Your task to perform on an android device: turn off picture-in-picture Image 0: 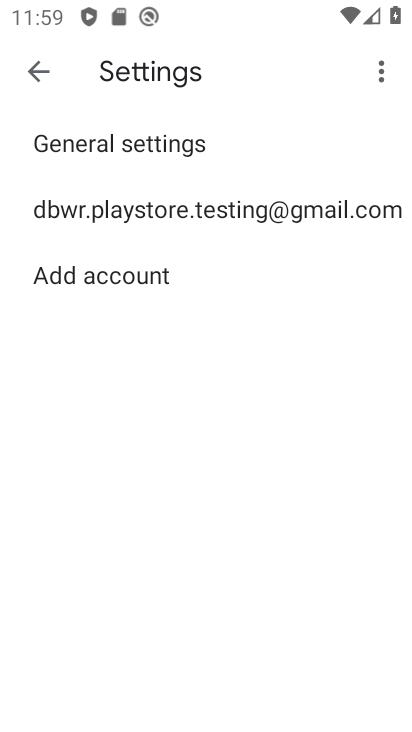
Step 0: task complete